Your task to perform on an android device: Go to Wikipedia Image 0: 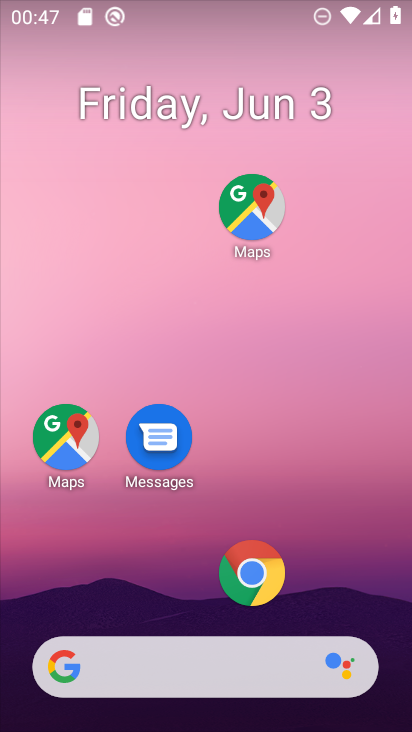
Step 0: click (243, 577)
Your task to perform on an android device: Go to Wikipedia Image 1: 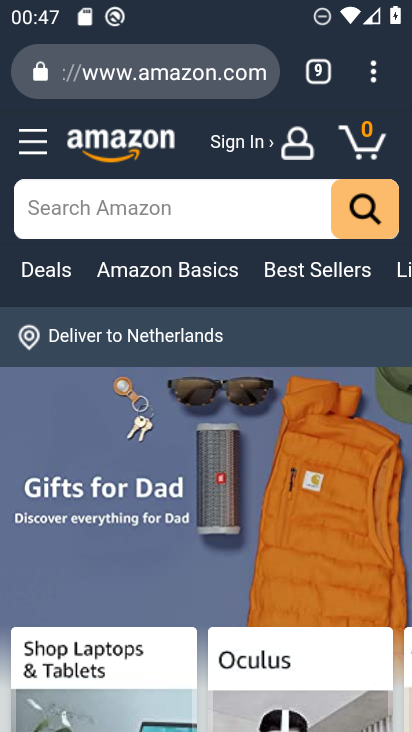
Step 1: click (315, 82)
Your task to perform on an android device: Go to Wikipedia Image 2: 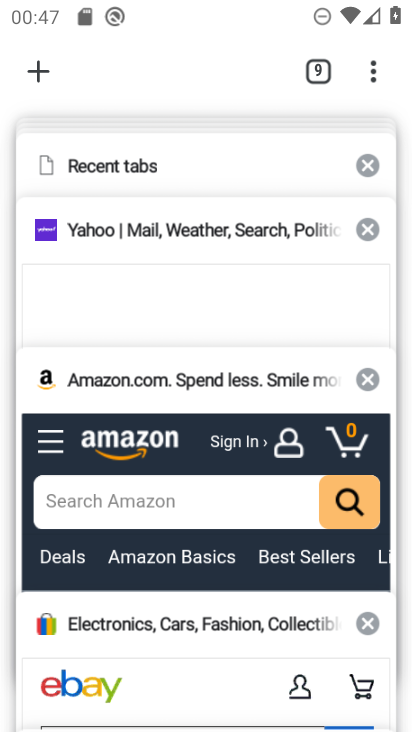
Step 2: drag from (232, 158) to (219, 459)
Your task to perform on an android device: Go to Wikipedia Image 3: 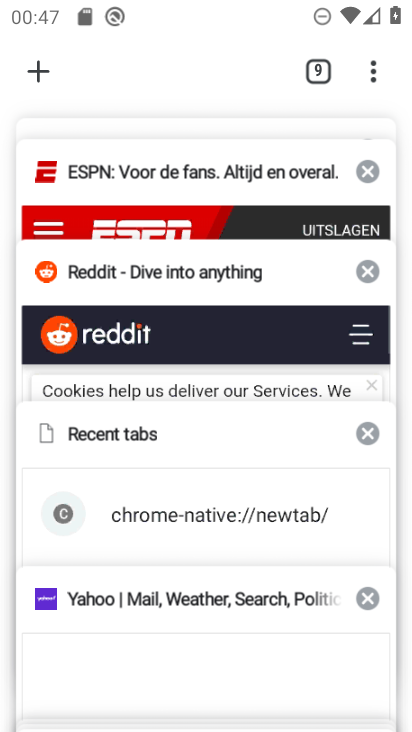
Step 3: drag from (226, 161) to (192, 505)
Your task to perform on an android device: Go to Wikipedia Image 4: 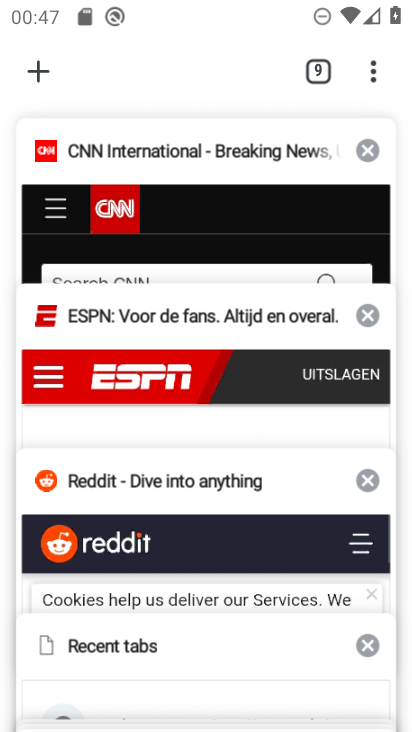
Step 4: drag from (204, 527) to (205, 404)
Your task to perform on an android device: Go to Wikipedia Image 5: 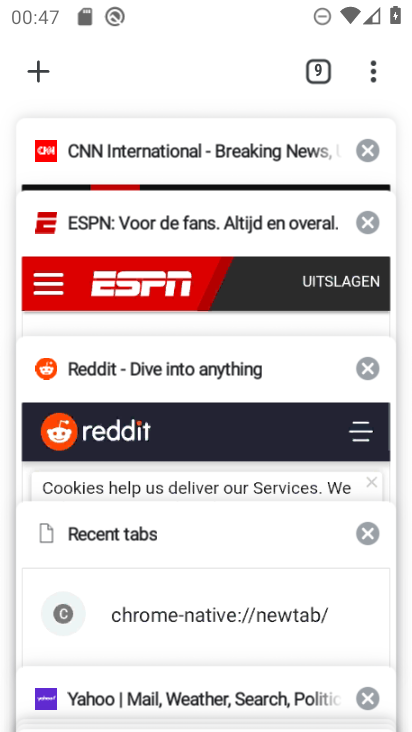
Step 5: drag from (244, 579) to (217, 142)
Your task to perform on an android device: Go to Wikipedia Image 6: 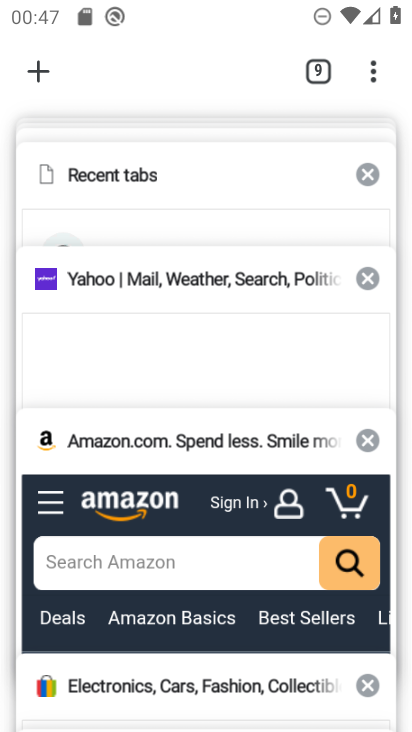
Step 6: drag from (220, 560) to (225, 362)
Your task to perform on an android device: Go to Wikipedia Image 7: 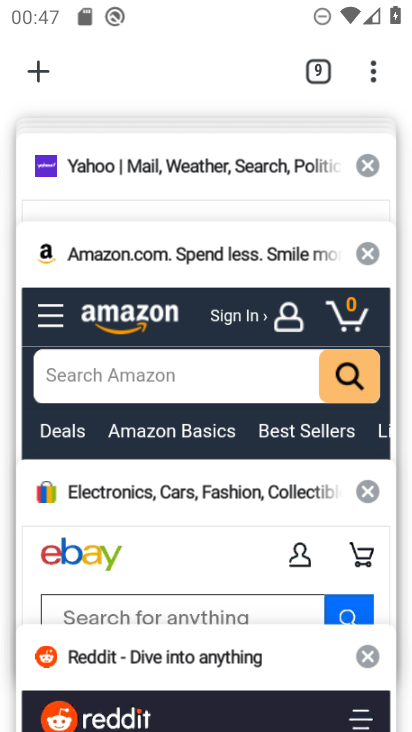
Step 7: drag from (255, 629) to (247, 397)
Your task to perform on an android device: Go to Wikipedia Image 8: 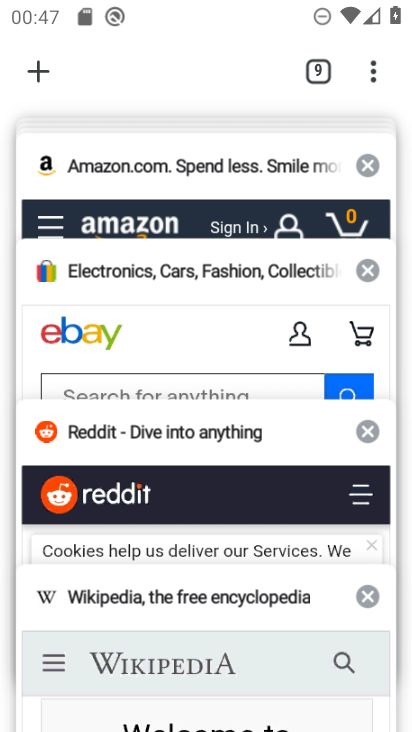
Step 8: click (256, 644)
Your task to perform on an android device: Go to Wikipedia Image 9: 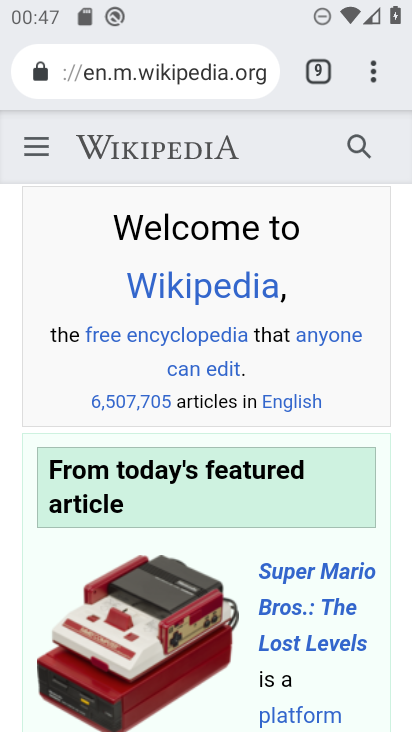
Step 9: task complete